Your task to perform on an android device: turn off picture-in-picture Image 0: 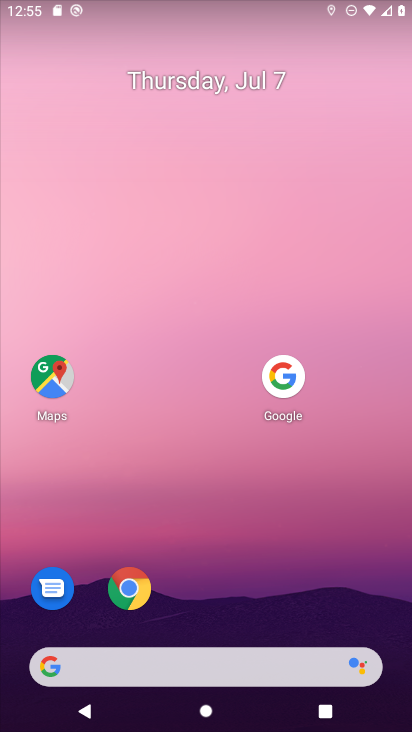
Step 0: click (133, 585)
Your task to perform on an android device: turn off picture-in-picture Image 1: 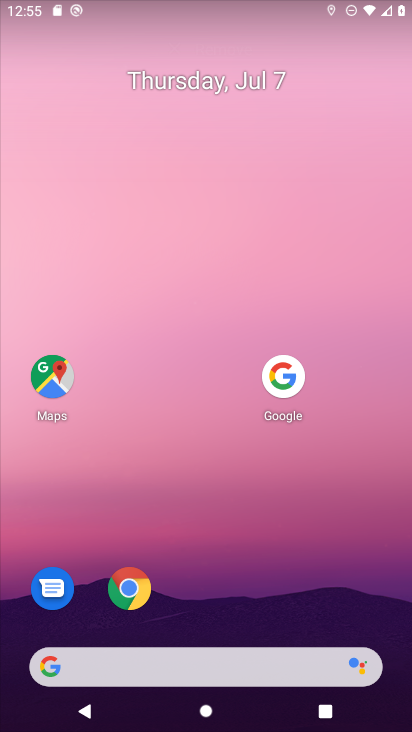
Step 1: click (230, 441)
Your task to perform on an android device: turn off picture-in-picture Image 2: 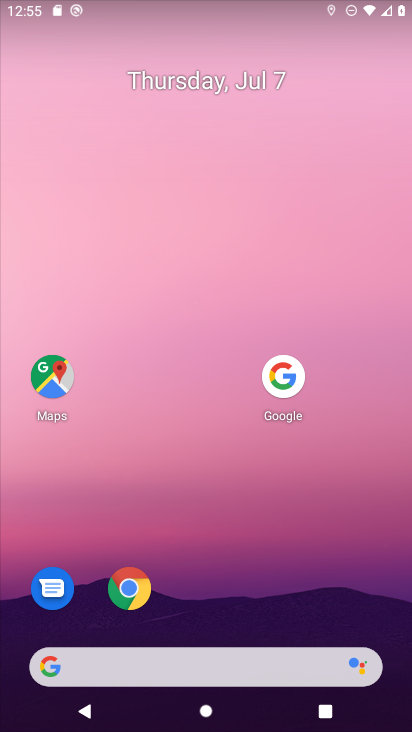
Step 2: drag from (127, 586) to (237, 439)
Your task to perform on an android device: turn off picture-in-picture Image 3: 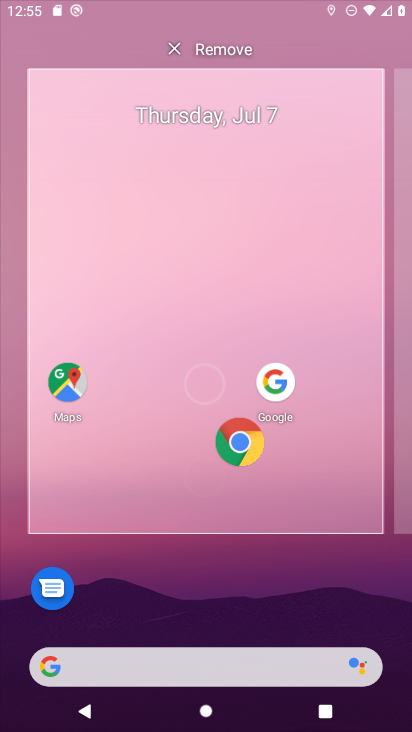
Step 3: drag from (237, 439) to (187, 556)
Your task to perform on an android device: turn off picture-in-picture Image 4: 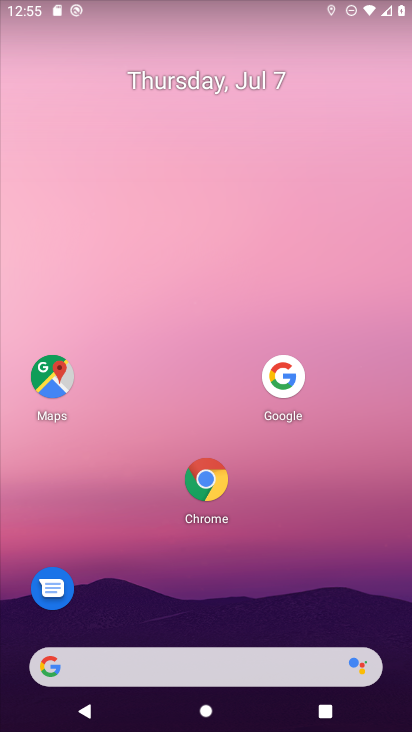
Step 4: drag from (210, 481) to (158, 575)
Your task to perform on an android device: turn off picture-in-picture Image 5: 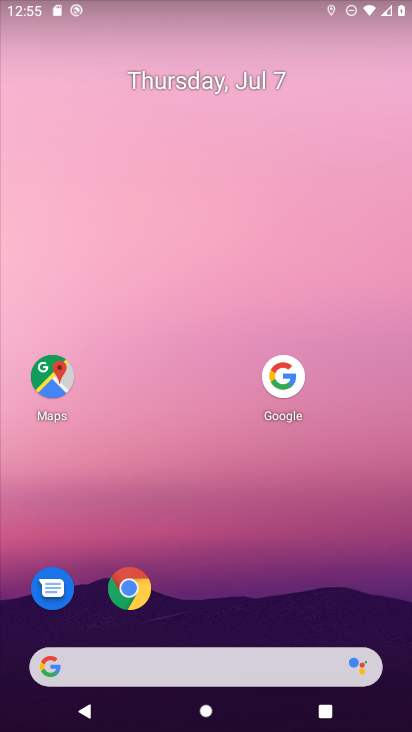
Step 5: click (135, 588)
Your task to perform on an android device: turn off picture-in-picture Image 6: 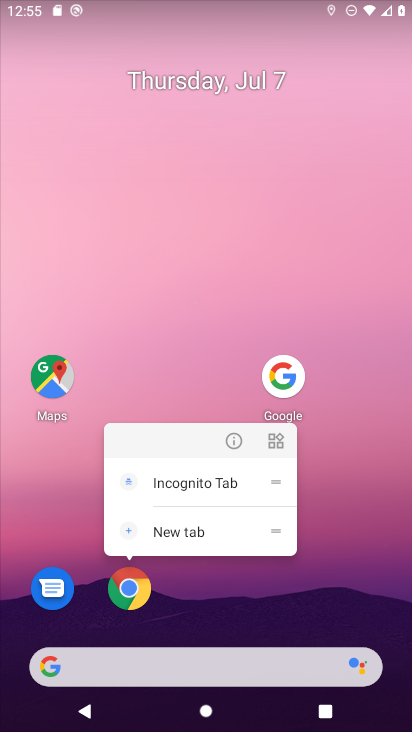
Step 6: click (230, 446)
Your task to perform on an android device: turn off picture-in-picture Image 7: 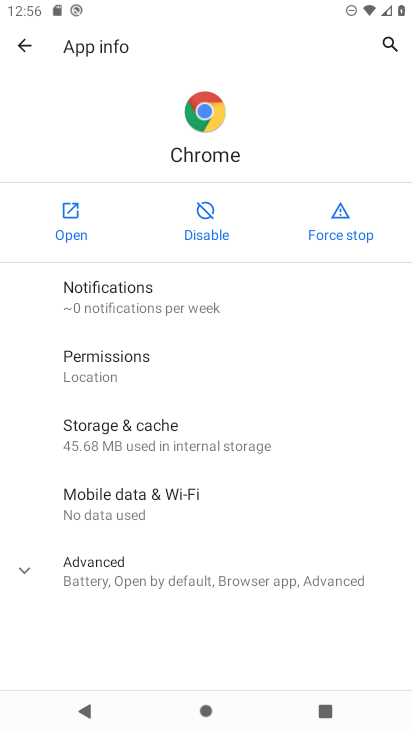
Step 7: click (138, 575)
Your task to perform on an android device: turn off picture-in-picture Image 8: 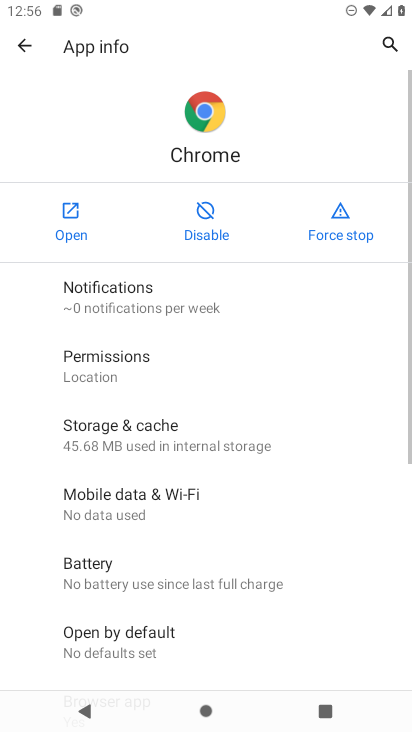
Step 8: drag from (118, 615) to (258, 190)
Your task to perform on an android device: turn off picture-in-picture Image 9: 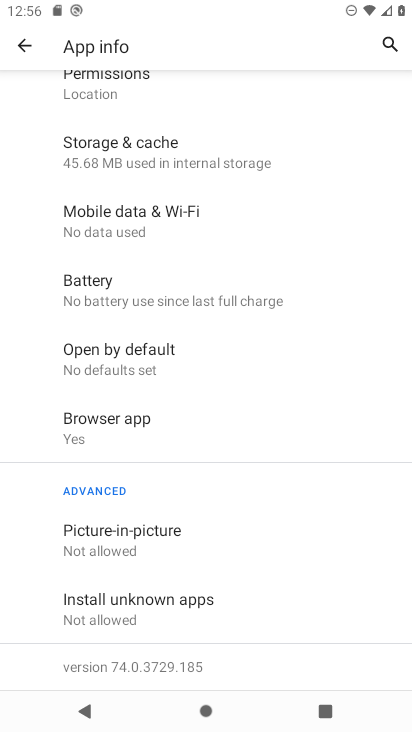
Step 9: click (113, 549)
Your task to perform on an android device: turn off picture-in-picture Image 10: 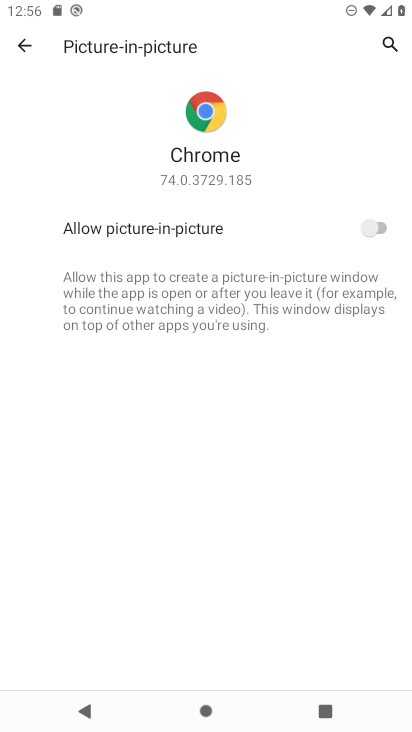
Step 10: task complete